Your task to perform on an android device: Open Google Image 0: 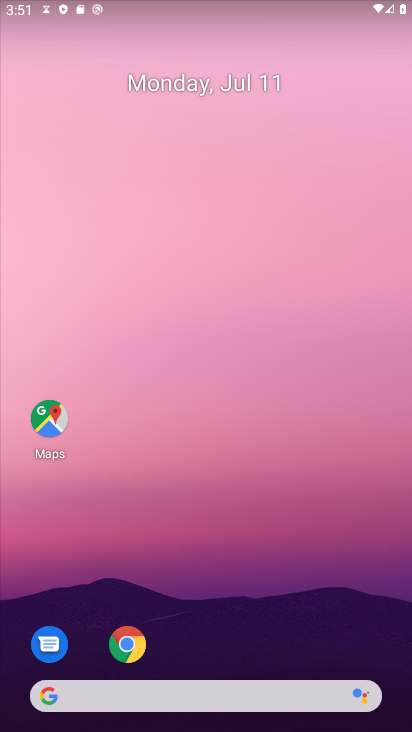
Step 0: drag from (195, 715) to (225, 121)
Your task to perform on an android device: Open Google Image 1: 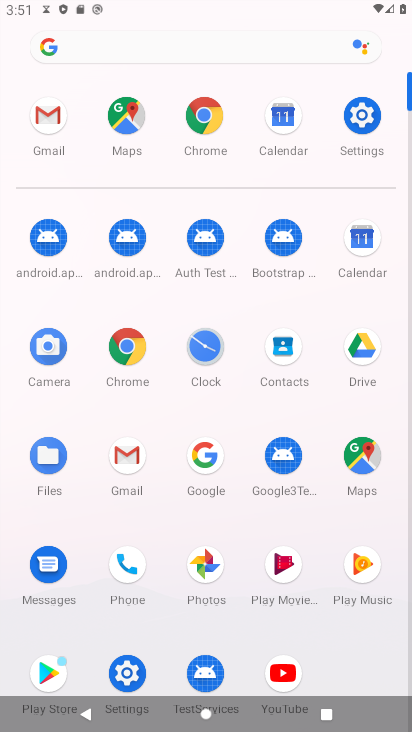
Step 1: click (199, 450)
Your task to perform on an android device: Open Google Image 2: 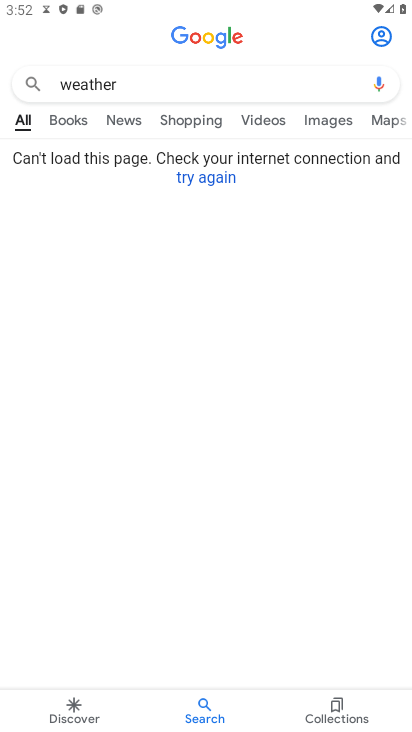
Step 2: task complete